Your task to perform on an android device: What is the recent news? Image 0: 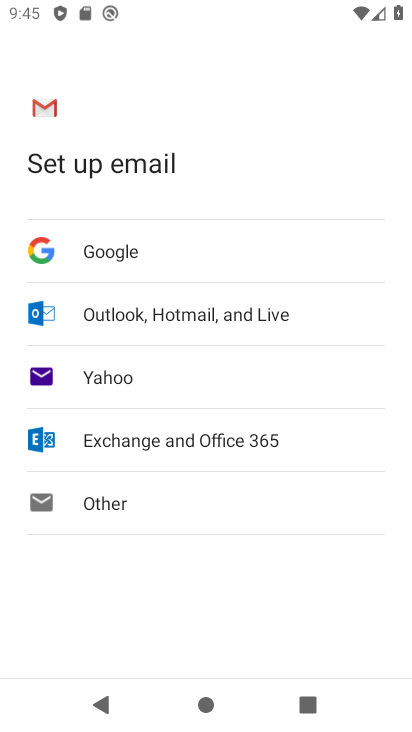
Step 0: press back button
Your task to perform on an android device: What is the recent news? Image 1: 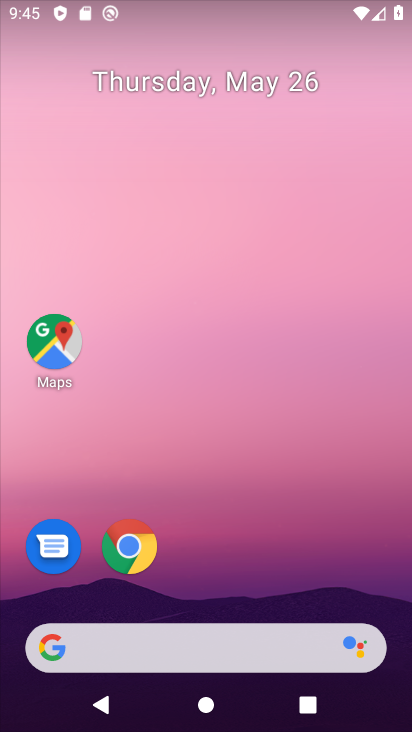
Step 1: drag from (269, 550) to (210, 118)
Your task to perform on an android device: What is the recent news? Image 2: 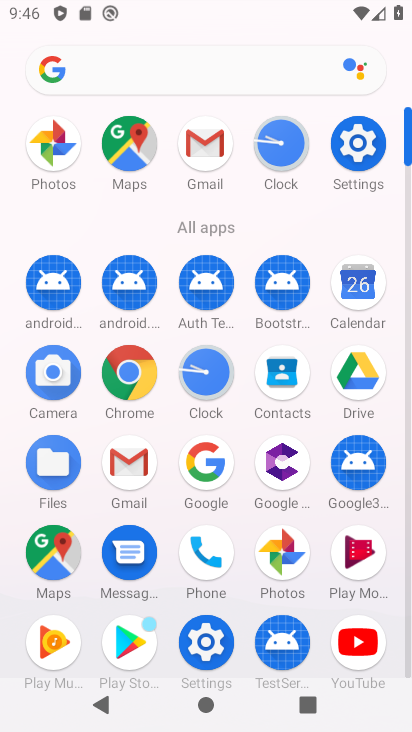
Step 2: click (201, 461)
Your task to perform on an android device: What is the recent news? Image 3: 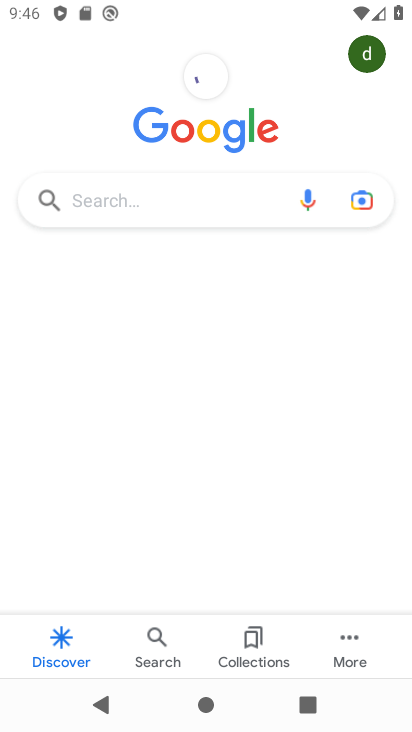
Step 3: click (152, 202)
Your task to perform on an android device: What is the recent news? Image 4: 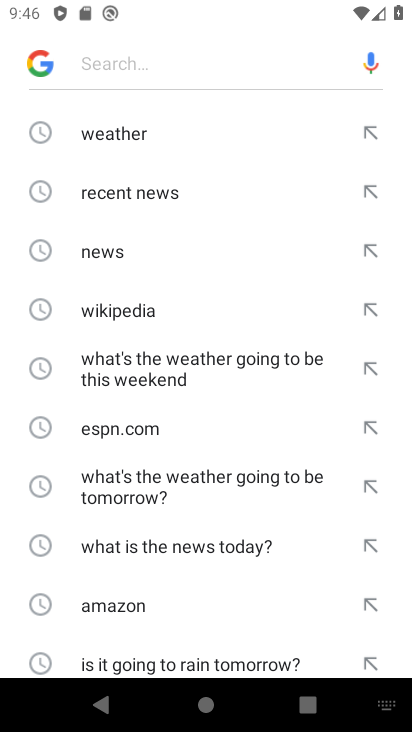
Step 4: click (147, 189)
Your task to perform on an android device: What is the recent news? Image 5: 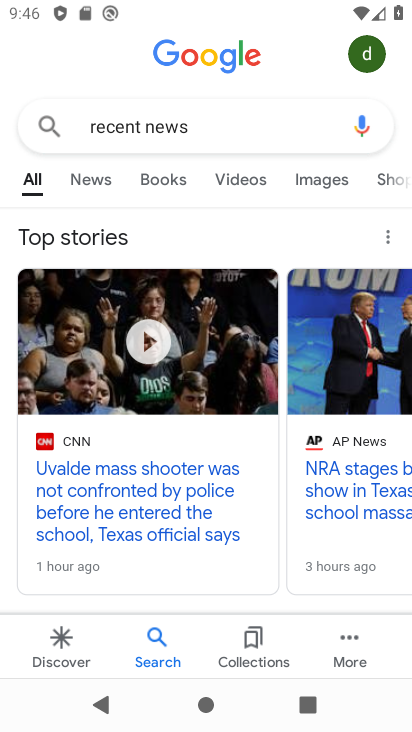
Step 5: task complete